Your task to perform on an android device: visit the assistant section in the google photos Image 0: 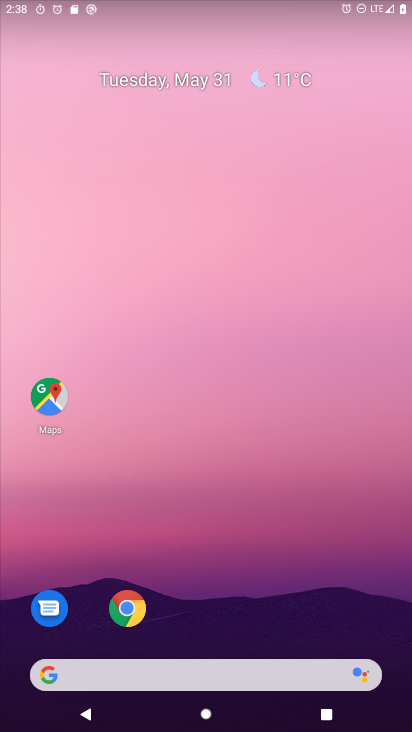
Step 0: drag from (316, 634) to (304, 0)
Your task to perform on an android device: visit the assistant section in the google photos Image 1: 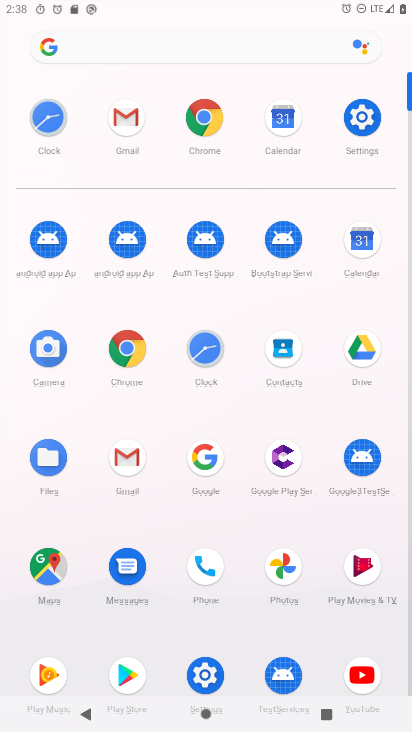
Step 1: click (272, 569)
Your task to perform on an android device: visit the assistant section in the google photos Image 2: 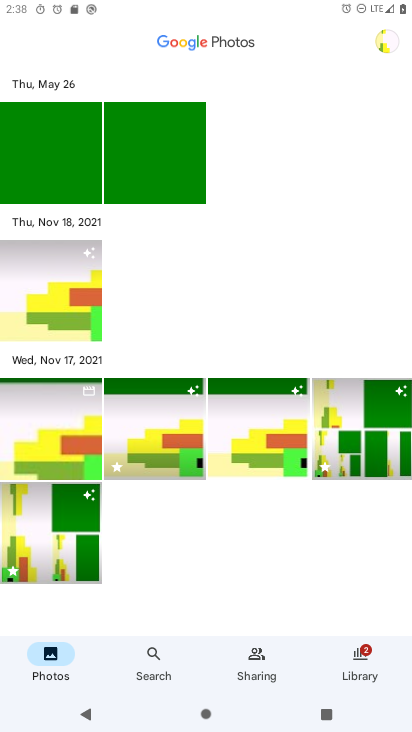
Step 2: task complete